Your task to perform on an android device: see creations saved in the google photos Image 0: 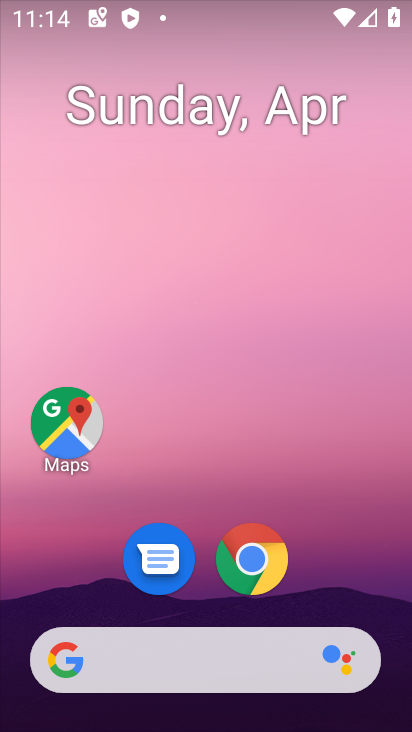
Step 0: drag from (324, 533) to (333, 71)
Your task to perform on an android device: see creations saved in the google photos Image 1: 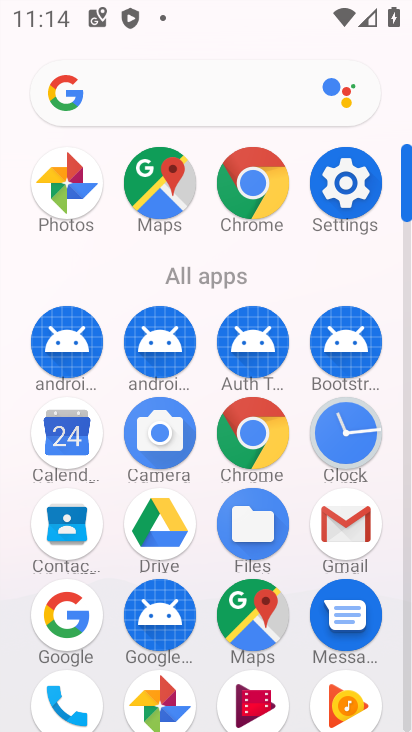
Step 1: click (85, 190)
Your task to perform on an android device: see creations saved in the google photos Image 2: 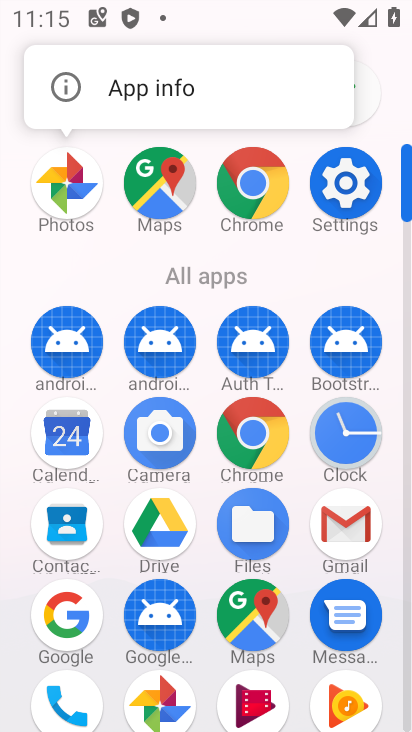
Step 2: click (62, 208)
Your task to perform on an android device: see creations saved in the google photos Image 3: 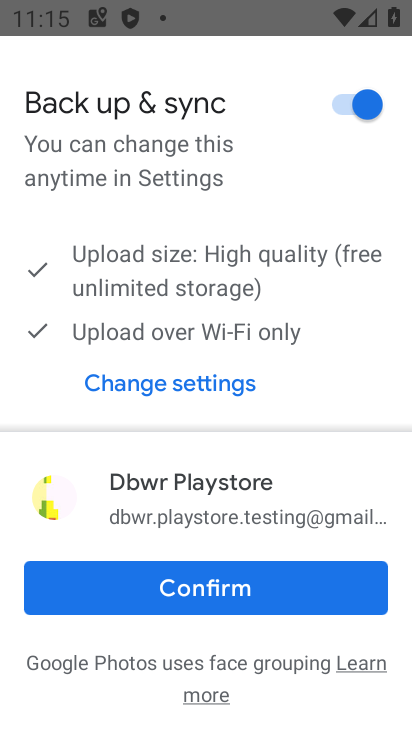
Step 3: click (267, 583)
Your task to perform on an android device: see creations saved in the google photos Image 4: 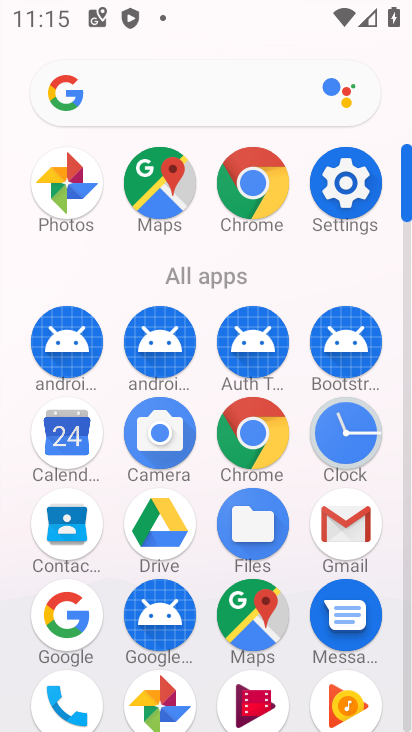
Step 4: click (80, 205)
Your task to perform on an android device: see creations saved in the google photos Image 5: 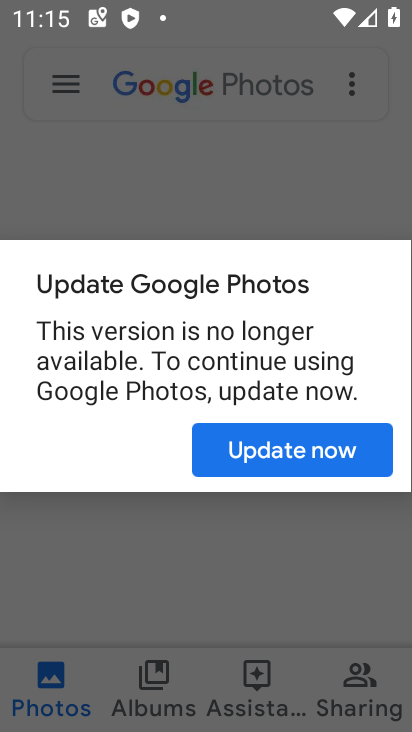
Step 5: click (266, 455)
Your task to perform on an android device: see creations saved in the google photos Image 6: 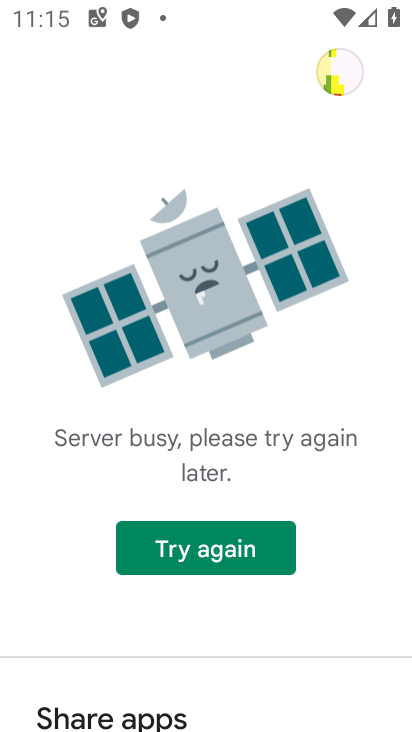
Step 6: click (188, 546)
Your task to perform on an android device: see creations saved in the google photos Image 7: 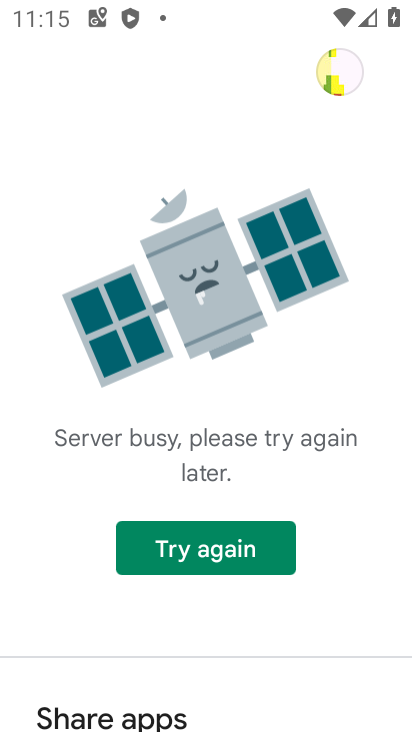
Step 7: click (188, 546)
Your task to perform on an android device: see creations saved in the google photos Image 8: 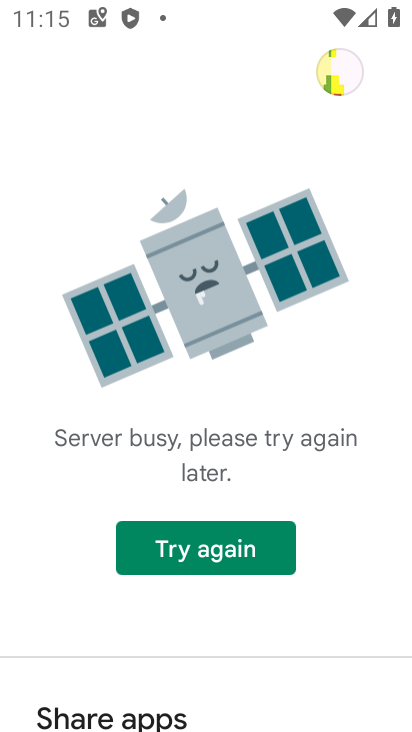
Step 8: click (188, 546)
Your task to perform on an android device: see creations saved in the google photos Image 9: 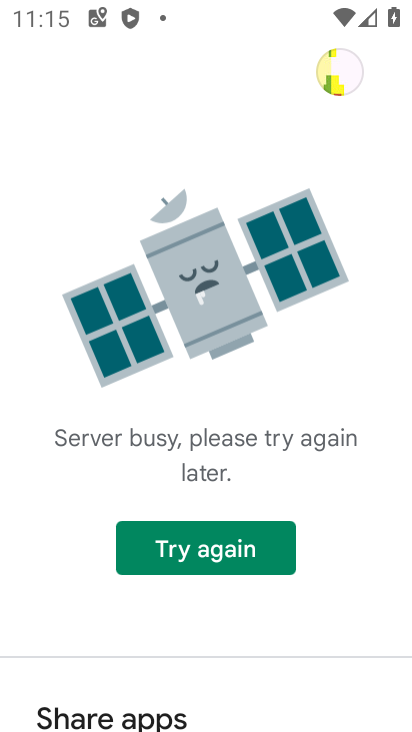
Step 9: click (188, 544)
Your task to perform on an android device: see creations saved in the google photos Image 10: 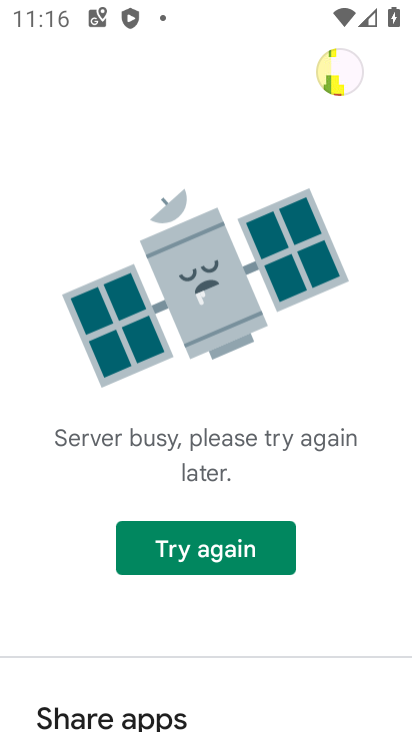
Step 10: click (188, 544)
Your task to perform on an android device: see creations saved in the google photos Image 11: 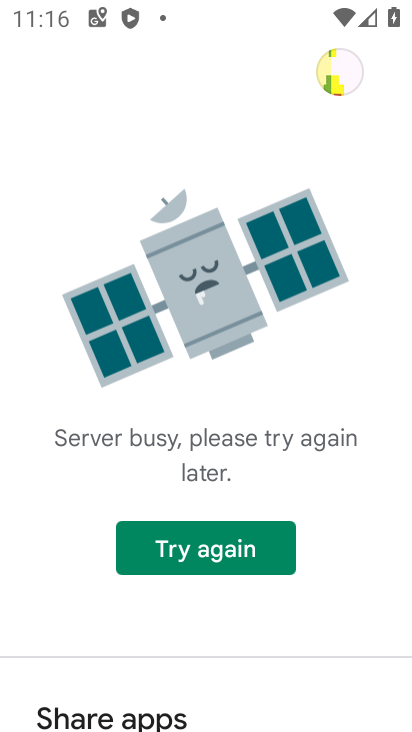
Step 11: click (188, 544)
Your task to perform on an android device: see creations saved in the google photos Image 12: 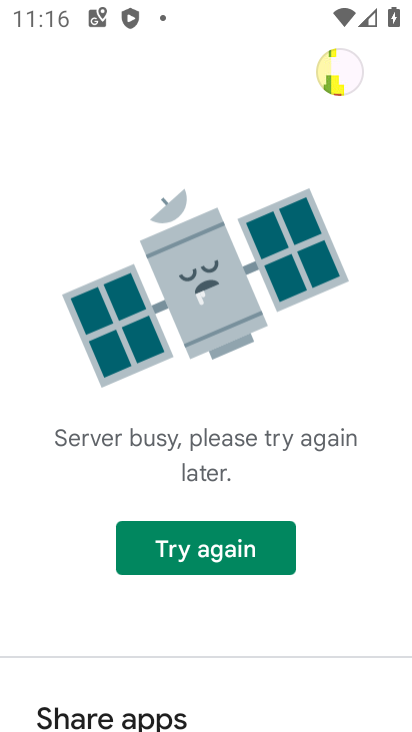
Step 12: task complete